Your task to perform on an android device: toggle javascript in the chrome app Image 0: 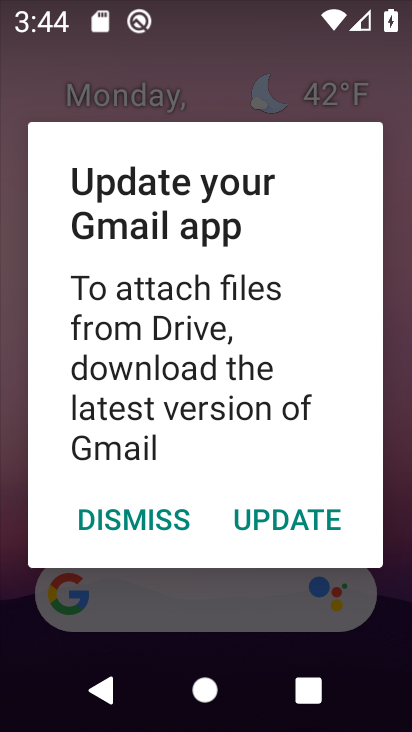
Step 0: press home button
Your task to perform on an android device: toggle javascript in the chrome app Image 1: 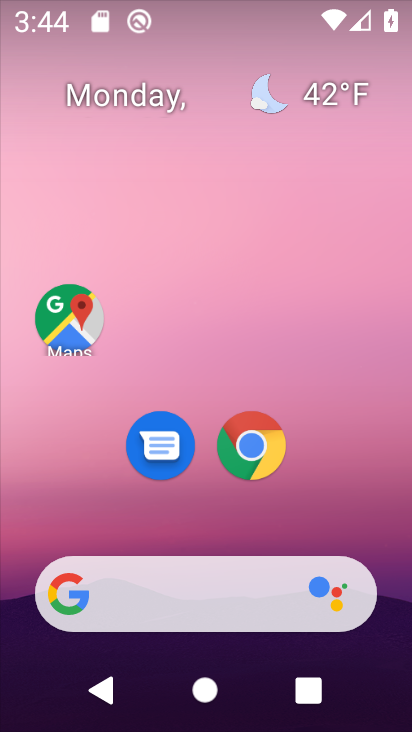
Step 1: drag from (11, 454) to (231, 26)
Your task to perform on an android device: toggle javascript in the chrome app Image 2: 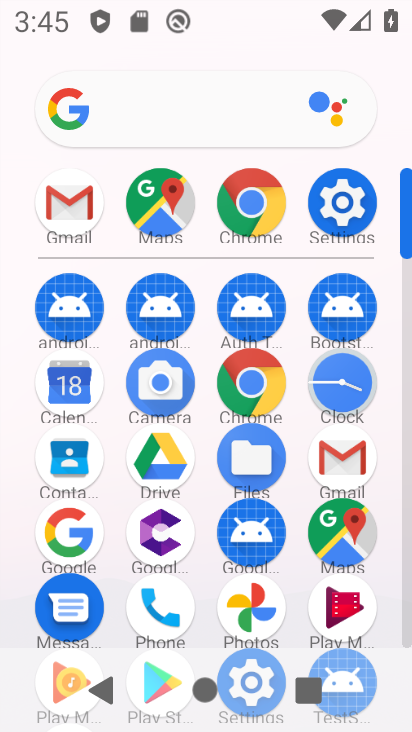
Step 2: click (257, 384)
Your task to perform on an android device: toggle javascript in the chrome app Image 3: 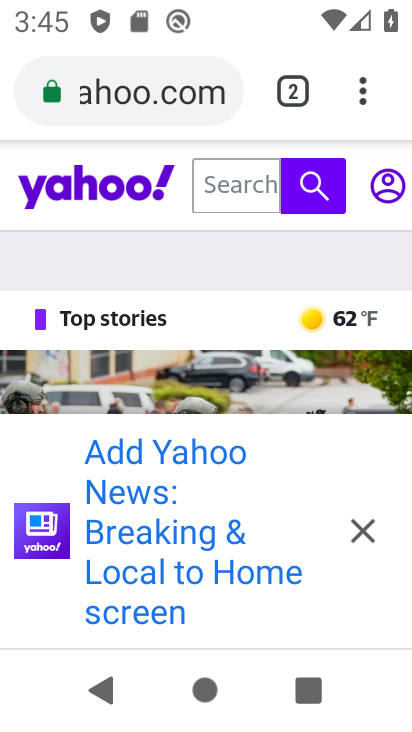
Step 3: click (358, 84)
Your task to perform on an android device: toggle javascript in the chrome app Image 4: 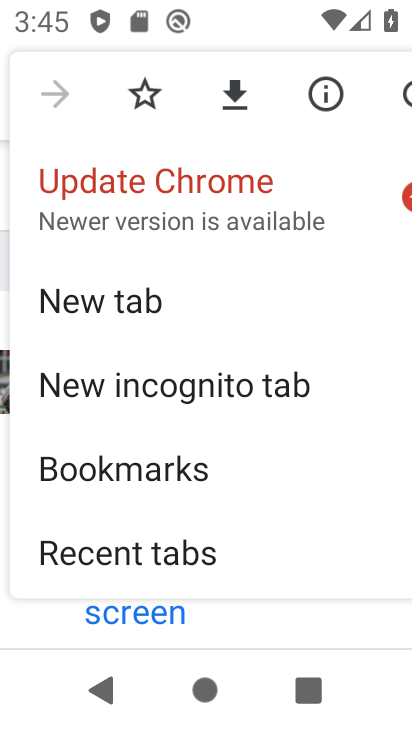
Step 4: drag from (115, 580) to (227, 162)
Your task to perform on an android device: toggle javascript in the chrome app Image 5: 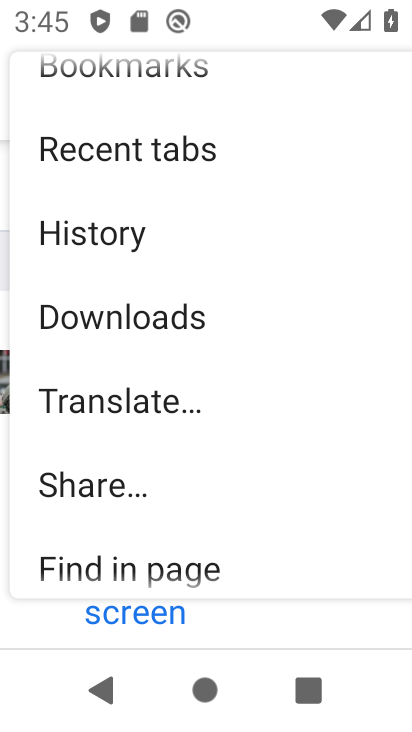
Step 5: drag from (160, 535) to (254, 125)
Your task to perform on an android device: toggle javascript in the chrome app Image 6: 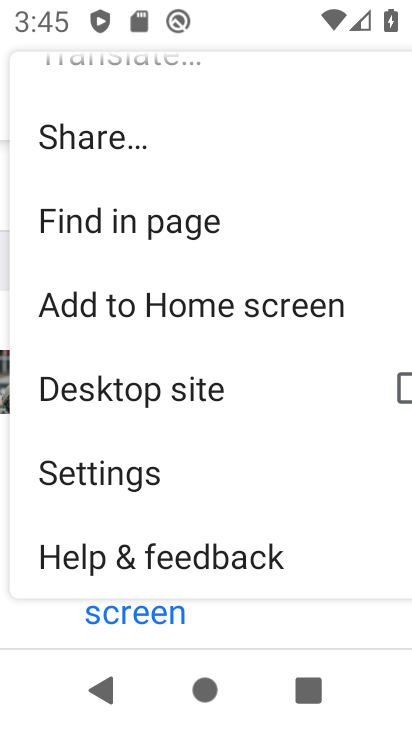
Step 6: click (150, 484)
Your task to perform on an android device: toggle javascript in the chrome app Image 7: 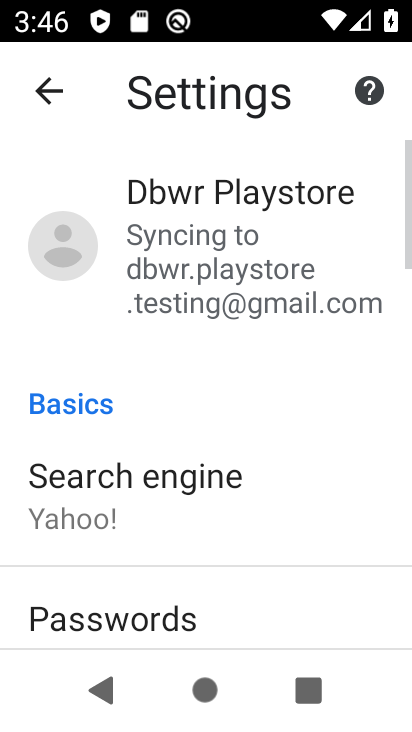
Step 7: drag from (28, 608) to (158, 91)
Your task to perform on an android device: toggle javascript in the chrome app Image 8: 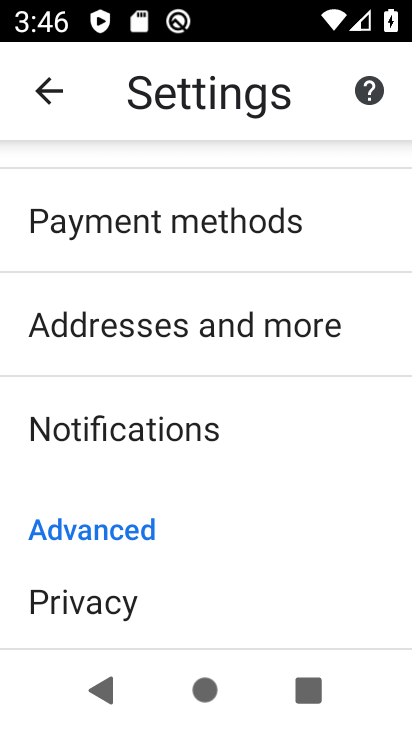
Step 8: drag from (108, 607) to (199, 185)
Your task to perform on an android device: toggle javascript in the chrome app Image 9: 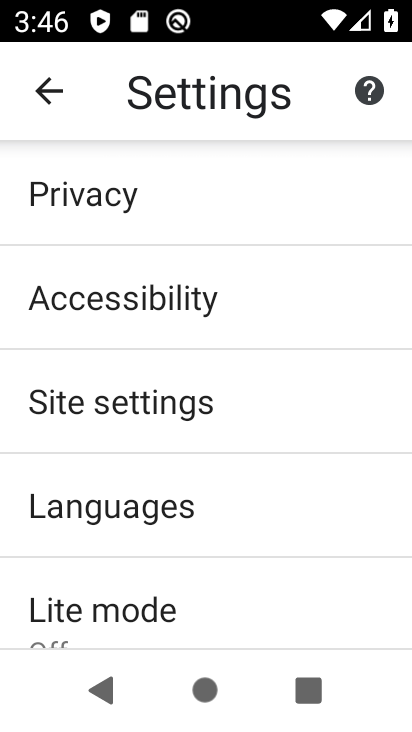
Step 9: click (116, 416)
Your task to perform on an android device: toggle javascript in the chrome app Image 10: 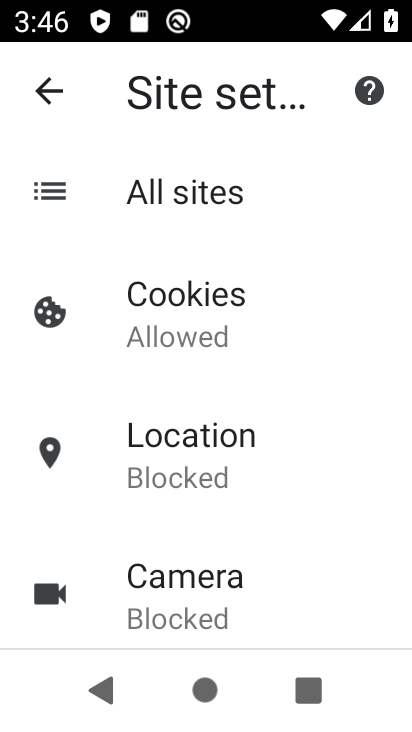
Step 10: drag from (117, 619) to (222, 187)
Your task to perform on an android device: toggle javascript in the chrome app Image 11: 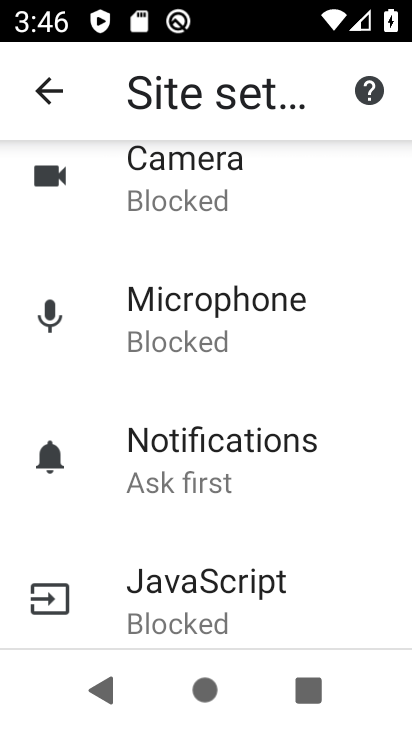
Step 11: click (197, 621)
Your task to perform on an android device: toggle javascript in the chrome app Image 12: 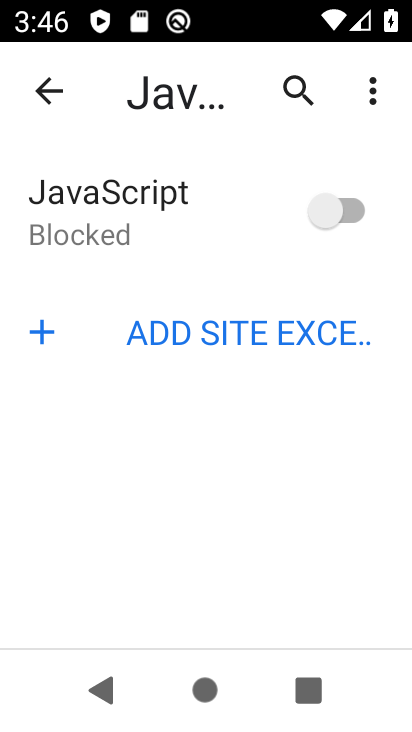
Step 12: click (198, 195)
Your task to perform on an android device: toggle javascript in the chrome app Image 13: 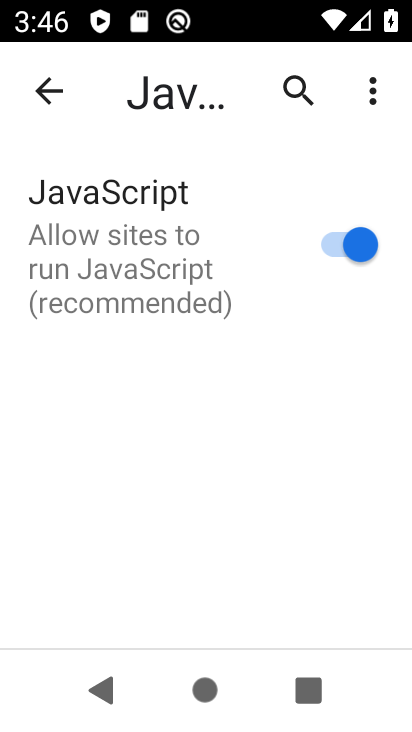
Step 13: task complete